Your task to perform on an android device: Open calendar and show me the fourth week of next month Image 0: 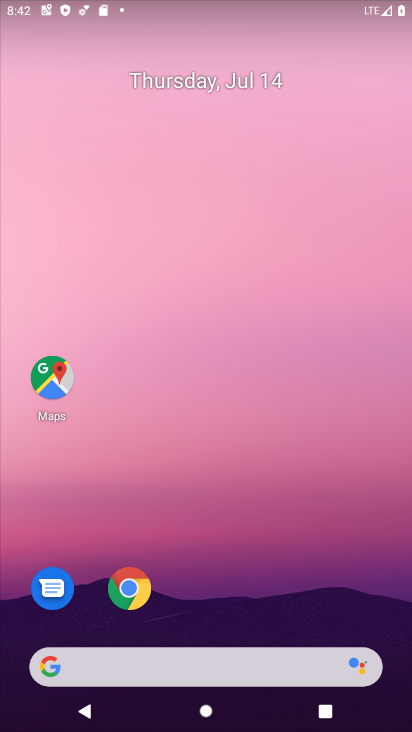
Step 0: drag from (386, 618) to (253, 62)
Your task to perform on an android device: Open calendar and show me the fourth week of next month Image 1: 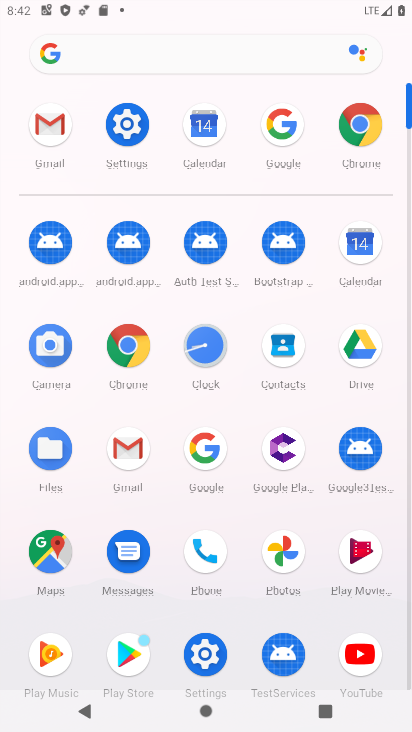
Step 1: click (349, 246)
Your task to perform on an android device: Open calendar and show me the fourth week of next month Image 2: 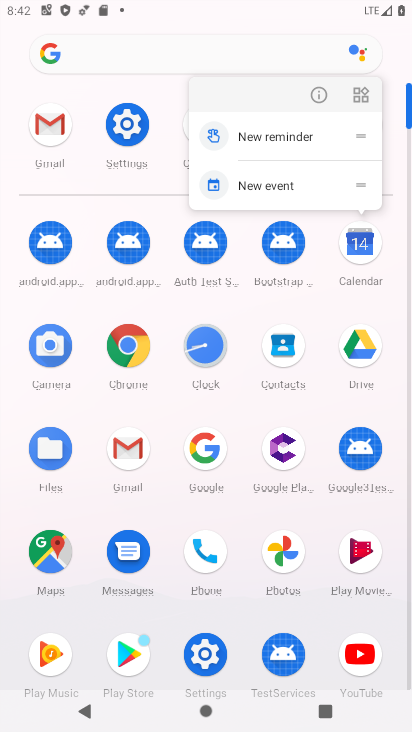
Step 2: click (349, 246)
Your task to perform on an android device: Open calendar and show me the fourth week of next month Image 3: 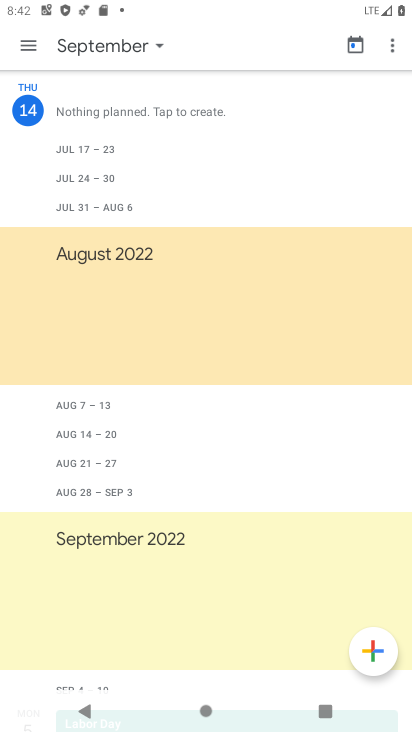
Step 3: click (92, 46)
Your task to perform on an android device: Open calendar and show me the fourth week of next month Image 4: 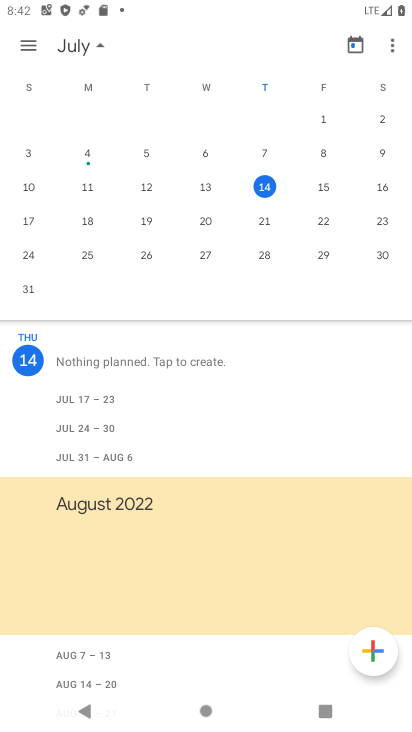
Step 4: drag from (373, 209) to (57, 197)
Your task to perform on an android device: Open calendar and show me the fourth week of next month Image 5: 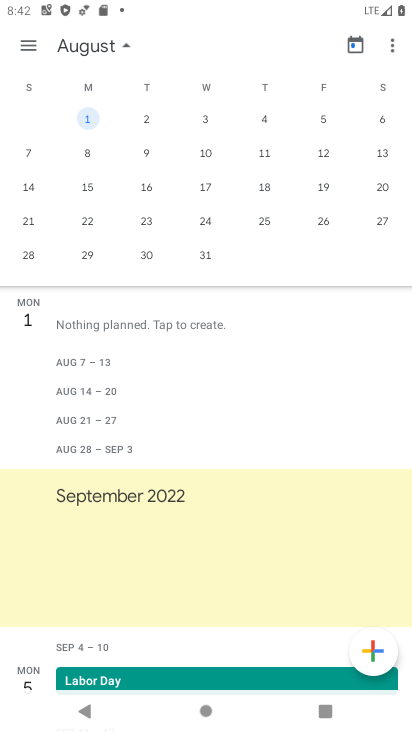
Step 5: click (25, 245)
Your task to perform on an android device: Open calendar and show me the fourth week of next month Image 6: 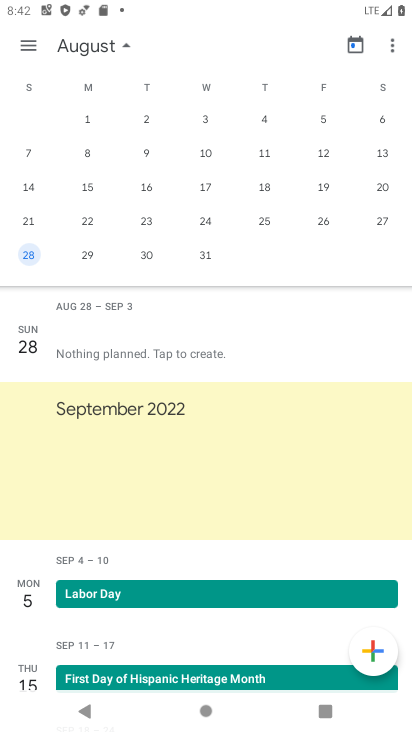
Step 6: task complete